Your task to perform on an android device: Open calendar and show me the fourth week of next month Image 0: 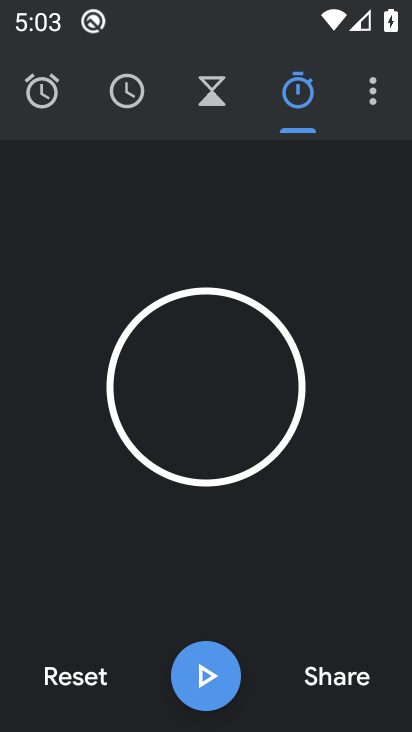
Step 0: press home button
Your task to perform on an android device: Open calendar and show me the fourth week of next month Image 1: 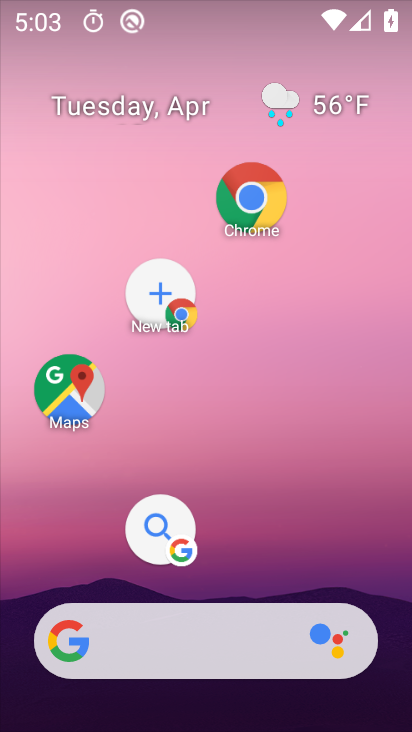
Step 1: drag from (249, 603) to (290, 177)
Your task to perform on an android device: Open calendar and show me the fourth week of next month Image 2: 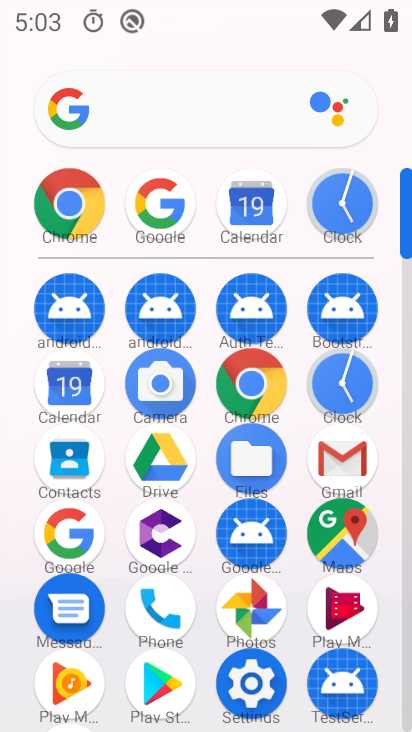
Step 2: click (237, 207)
Your task to perform on an android device: Open calendar and show me the fourth week of next month Image 3: 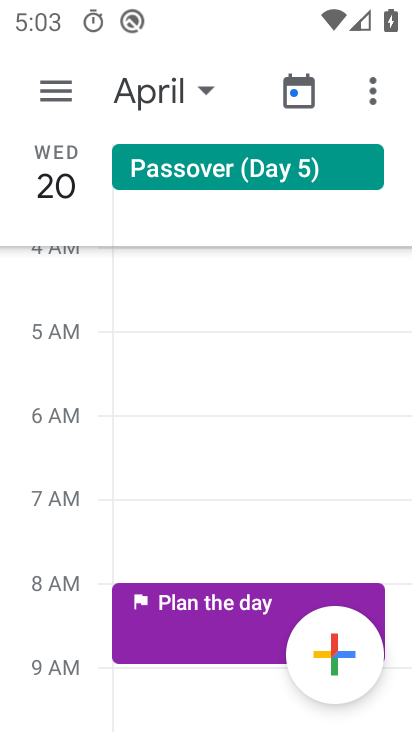
Step 3: click (172, 94)
Your task to perform on an android device: Open calendar and show me the fourth week of next month Image 4: 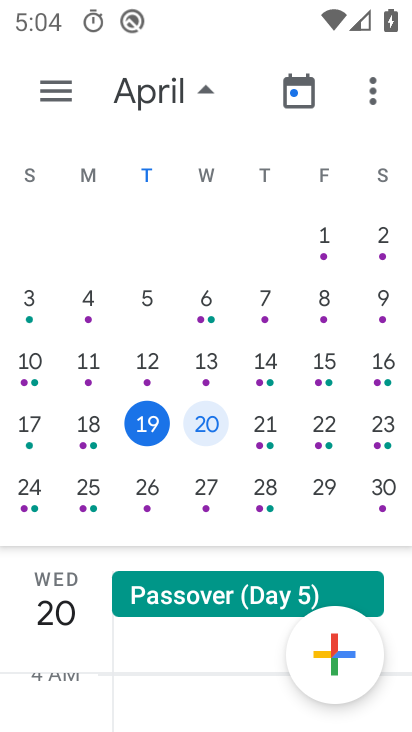
Step 4: drag from (359, 421) to (7, 406)
Your task to perform on an android device: Open calendar and show me the fourth week of next month Image 5: 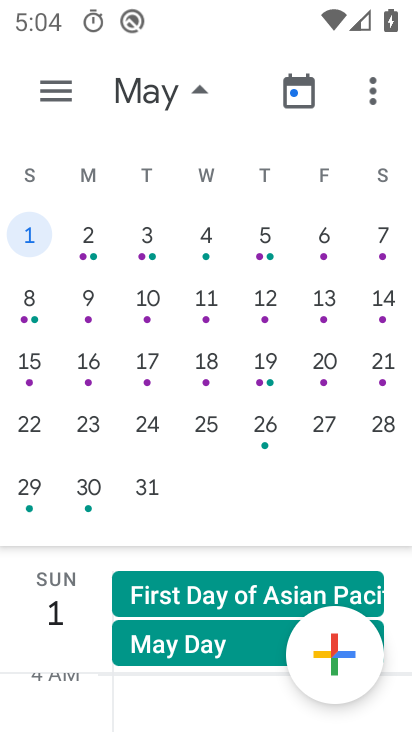
Step 5: click (28, 424)
Your task to perform on an android device: Open calendar and show me the fourth week of next month Image 6: 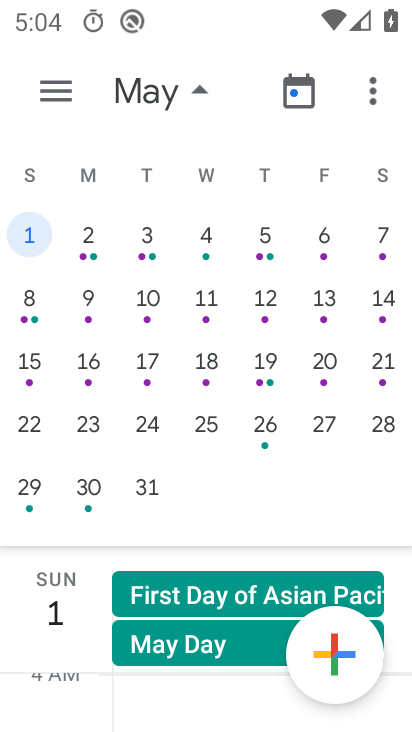
Step 6: click (32, 426)
Your task to perform on an android device: Open calendar and show me the fourth week of next month Image 7: 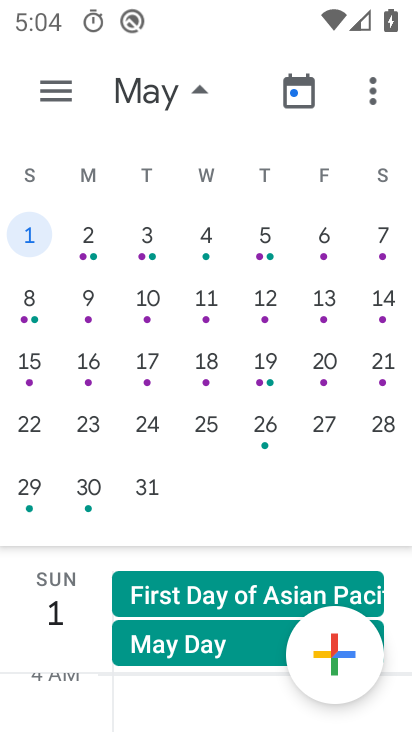
Step 7: click (32, 426)
Your task to perform on an android device: Open calendar and show me the fourth week of next month Image 8: 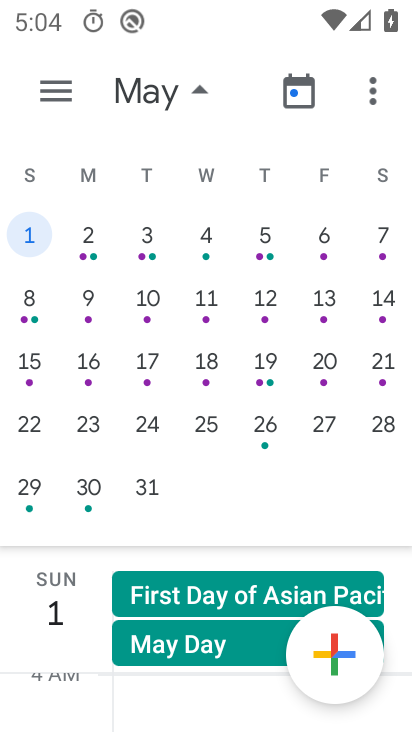
Step 8: click (31, 425)
Your task to perform on an android device: Open calendar and show me the fourth week of next month Image 9: 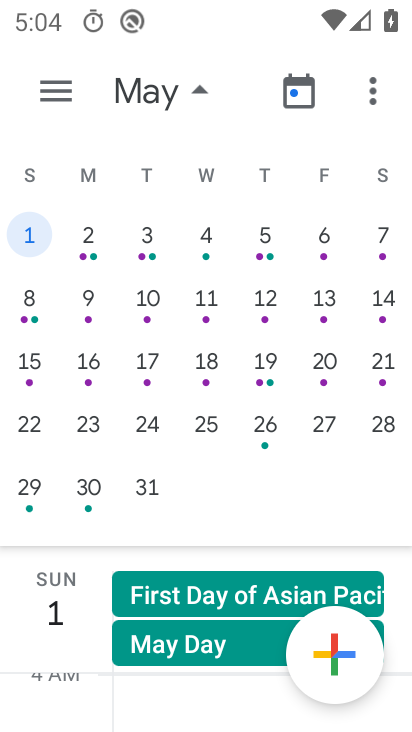
Step 9: click (93, 419)
Your task to perform on an android device: Open calendar and show me the fourth week of next month Image 10: 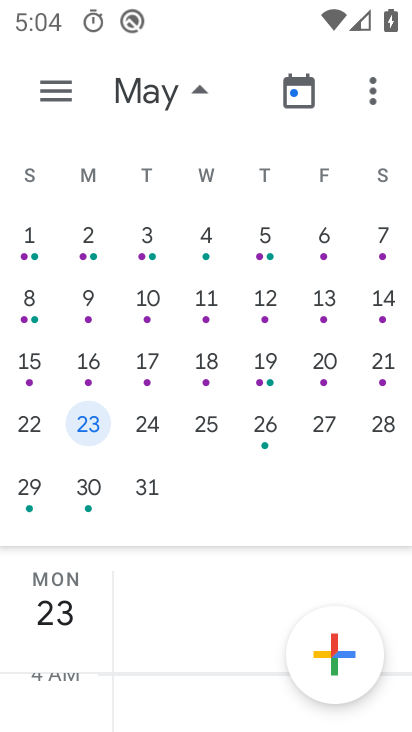
Step 10: task complete